Your task to perform on an android device: turn on javascript in the chrome app Image 0: 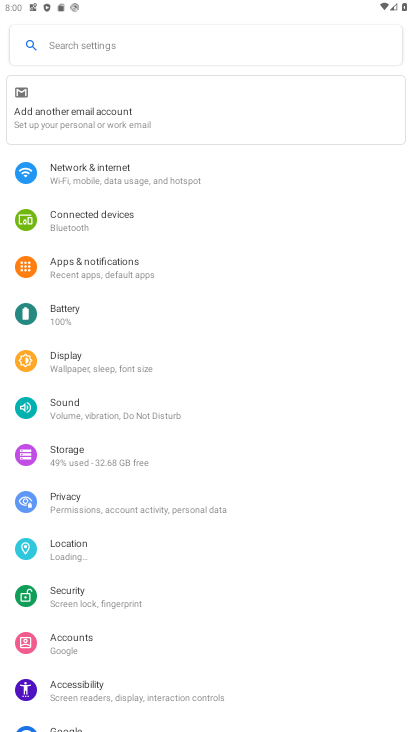
Step 0: press home button
Your task to perform on an android device: turn on javascript in the chrome app Image 1: 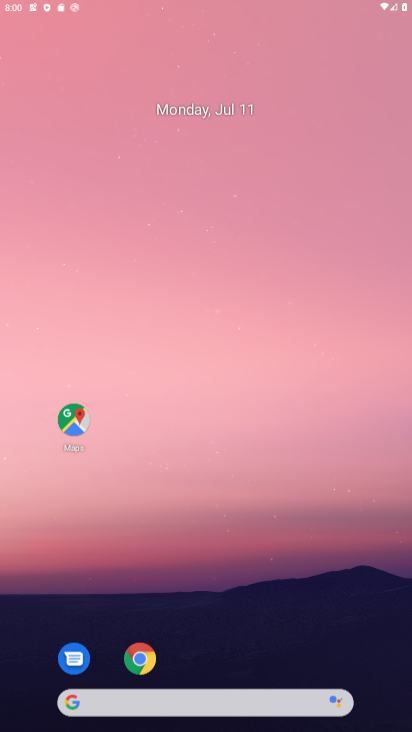
Step 1: drag from (208, 618) to (234, 411)
Your task to perform on an android device: turn on javascript in the chrome app Image 2: 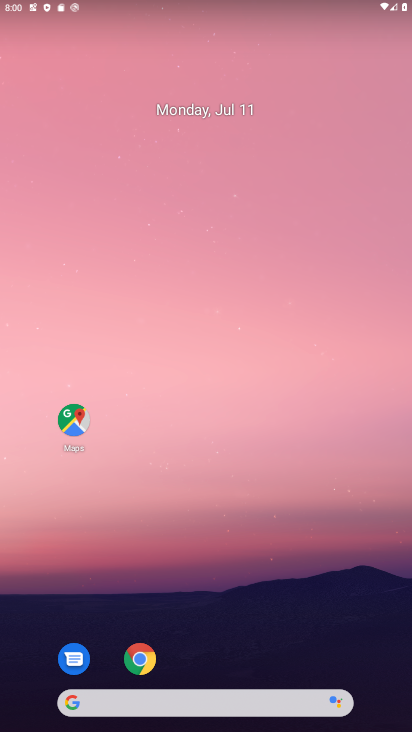
Step 2: drag from (199, 674) to (338, 0)
Your task to perform on an android device: turn on javascript in the chrome app Image 3: 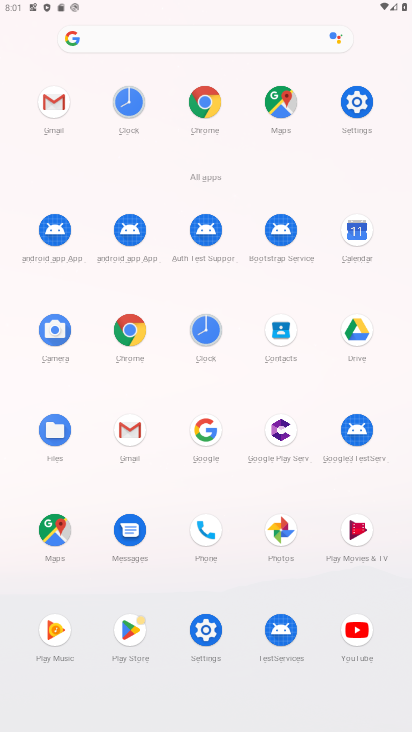
Step 3: click (133, 328)
Your task to perform on an android device: turn on javascript in the chrome app Image 4: 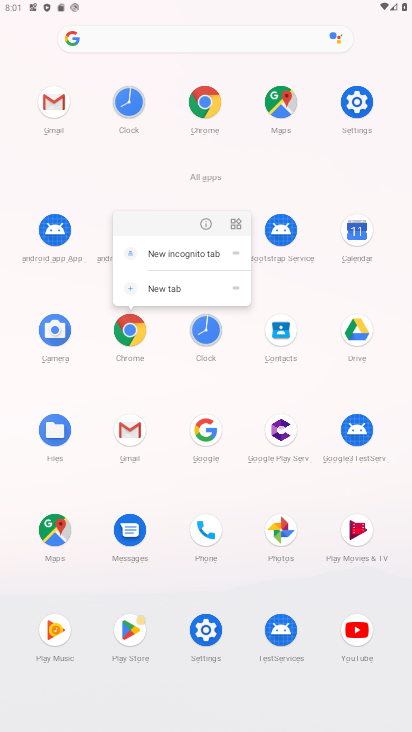
Step 4: click (211, 226)
Your task to perform on an android device: turn on javascript in the chrome app Image 5: 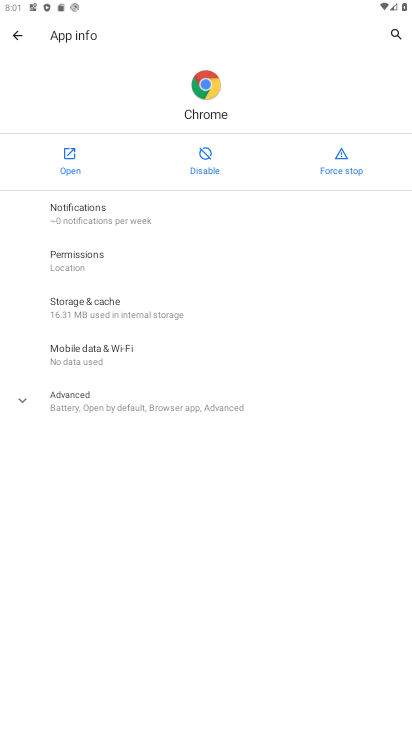
Step 5: click (79, 156)
Your task to perform on an android device: turn on javascript in the chrome app Image 6: 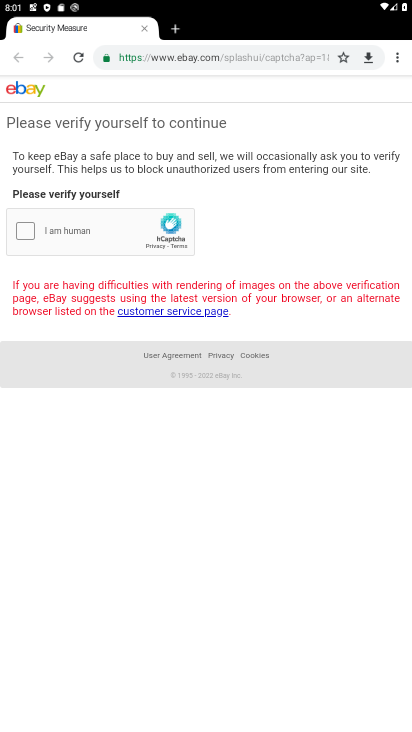
Step 6: click (398, 55)
Your task to perform on an android device: turn on javascript in the chrome app Image 7: 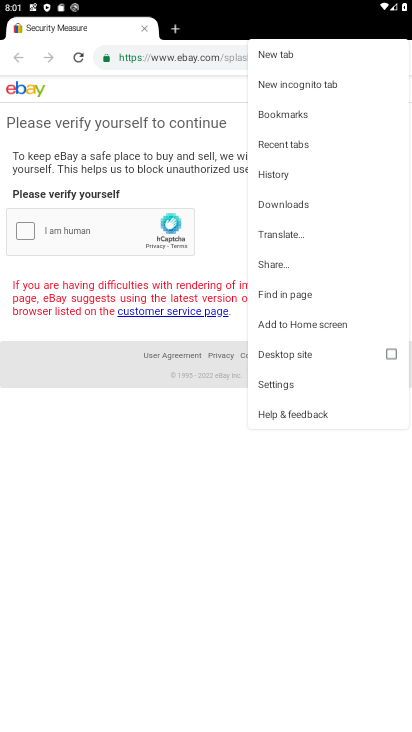
Step 7: click (282, 383)
Your task to perform on an android device: turn on javascript in the chrome app Image 8: 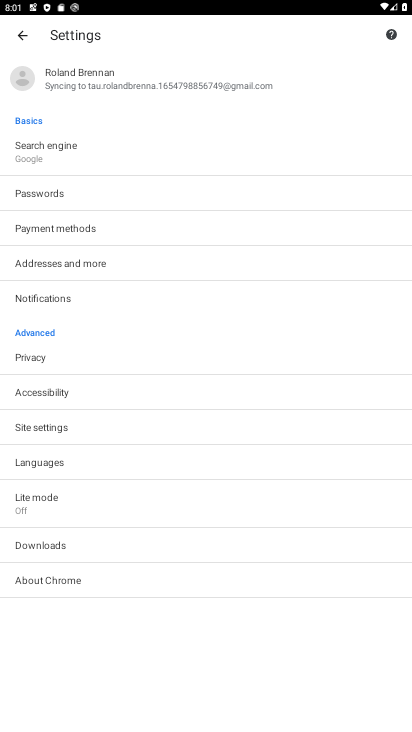
Step 8: drag from (140, 521) to (211, 232)
Your task to perform on an android device: turn on javascript in the chrome app Image 9: 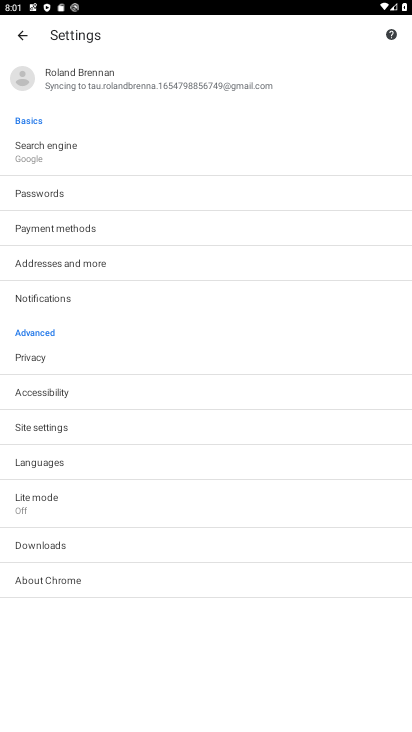
Step 9: click (73, 431)
Your task to perform on an android device: turn on javascript in the chrome app Image 10: 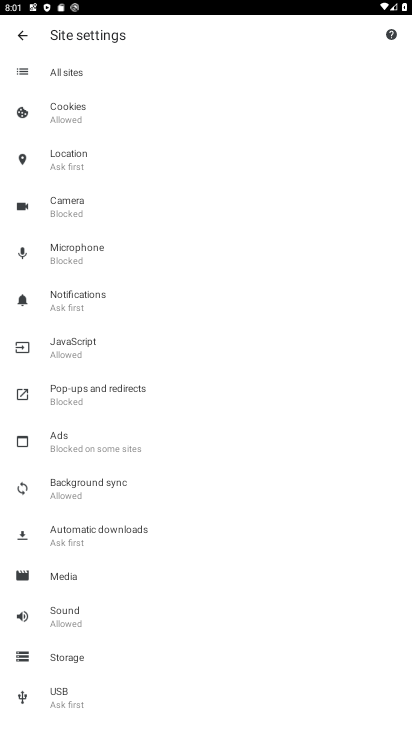
Step 10: click (85, 358)
Your task to perform on an android device: turn on javascript in the chrome app Image 11: 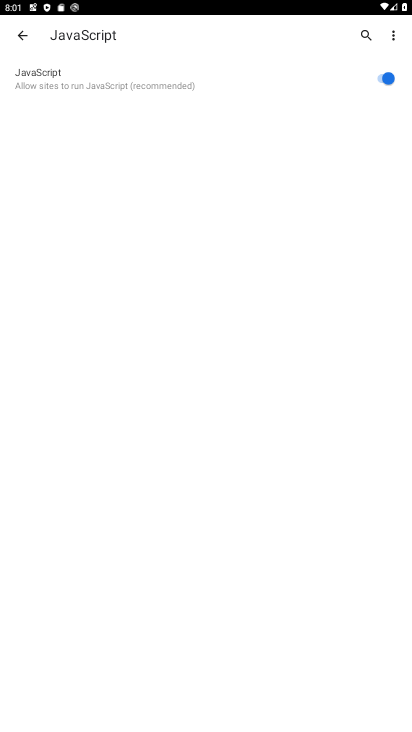
Step 11: task complete